Your task to perform on an android device: check the backup settings in the google photos Image 0: 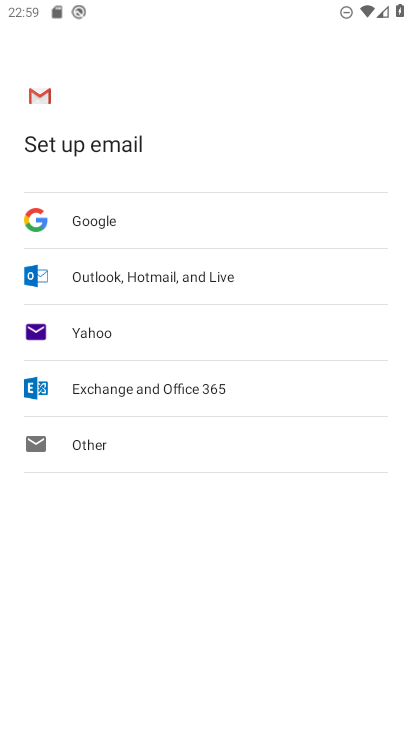
Step 0: press home button
Your task to perform on an android device: check the backup settings in the google photos Image 1: 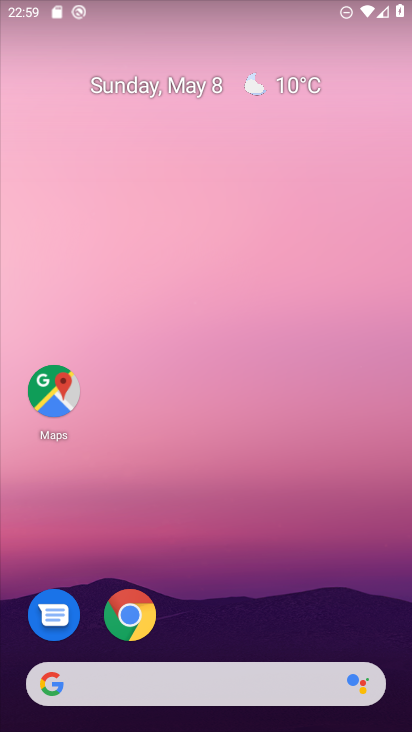
Step 1: drag from (258, 600) to (237, 132)
Your task to perform on an android device: check the backup settings in the google photos Image 2: 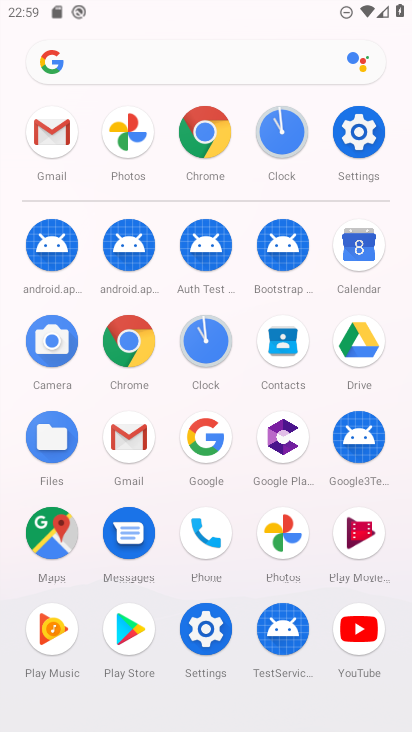
Step 2: click (285, 536)
Your task to perform on an android device: check the backup settings in the google photos Image 3: 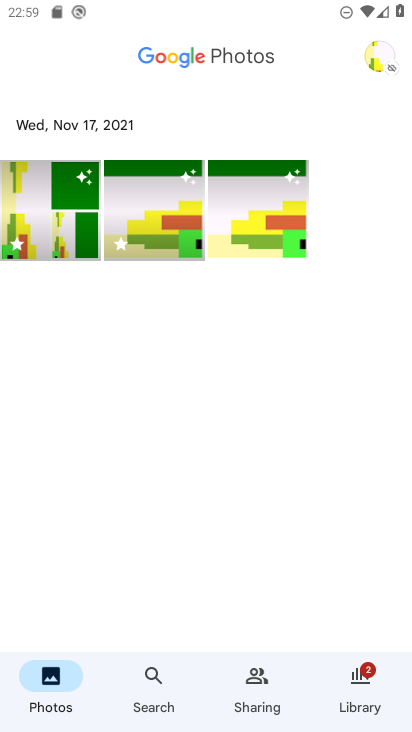
Step 3: click (387, 57)
Your task to perform on an android device: check the backup settings in the google photos Image 4: 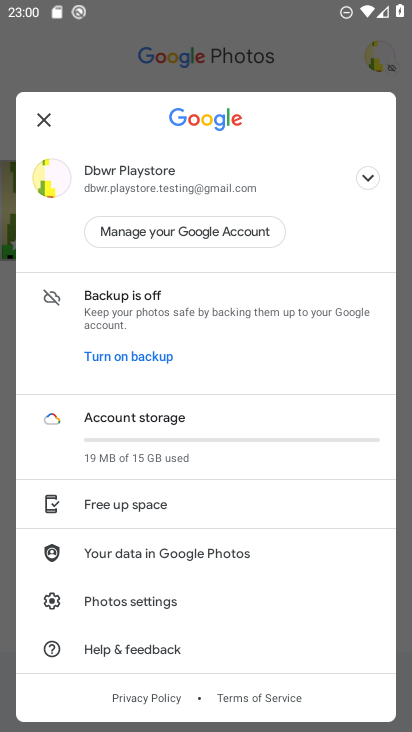
Step 4: click (138, 601)
Your task to perform on an android device: check the backup settings in the google photos Image 5: 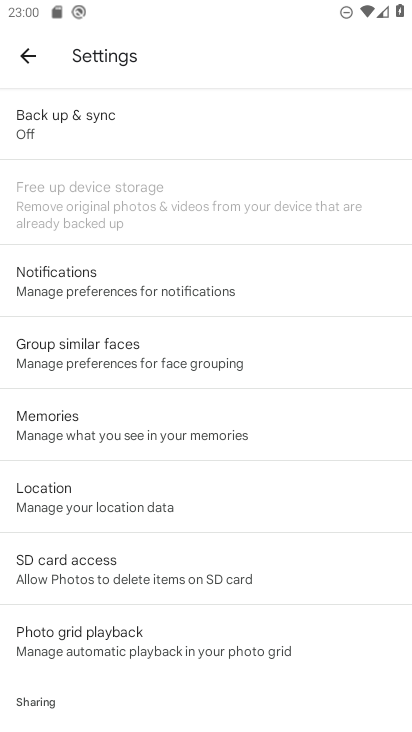
Step 5: click (97, 128)
Your task to perform on an android device: check the backup settings in the google photos Image 6: 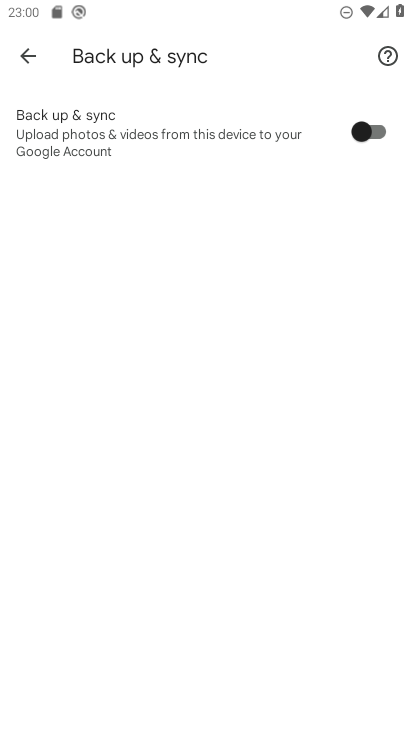
Step 6: click (29, 51)
Your task to perform on an android device: check the backup settings in the google photos Image 7: 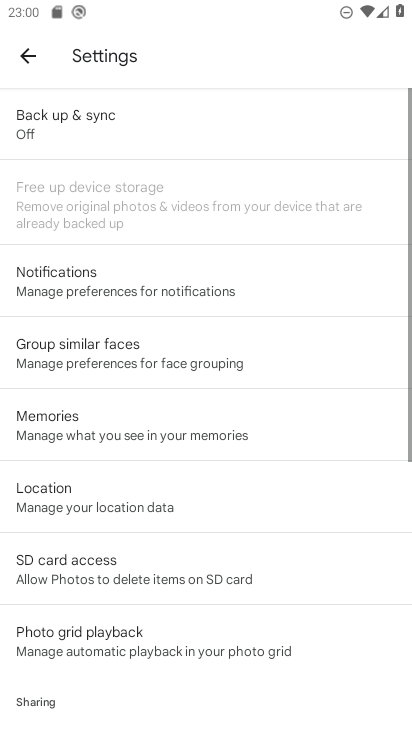
Step 7: click (29, 51)
Your task to perform on an android device: check the backup settings in the google photos Image 8: 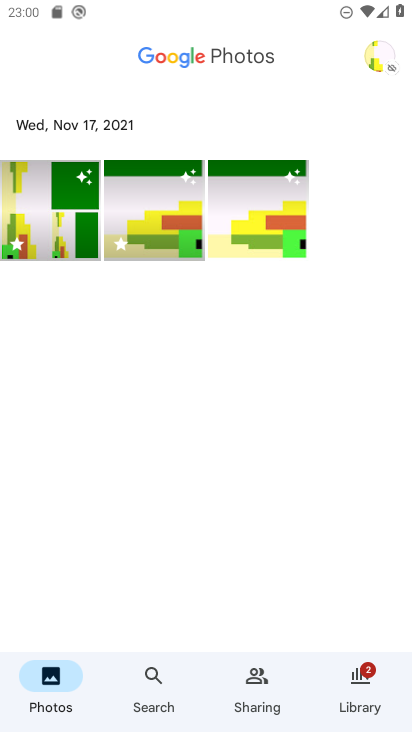
Step 8: click (388, 58)
Your task to perform on an android device: check the backup settings in the google photos Image 9: 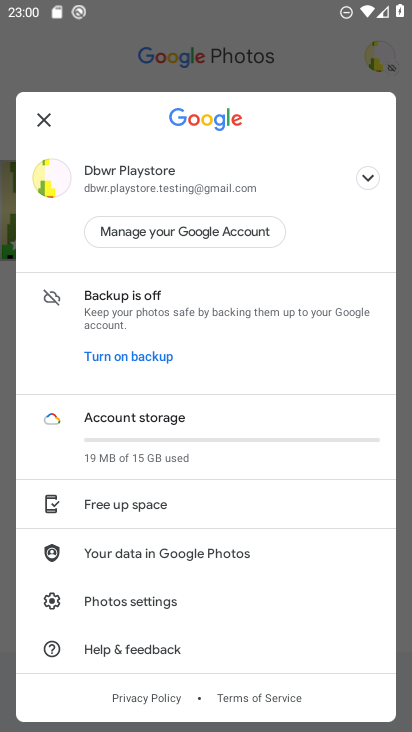
Step 9: click (161, 309)
Your task to perform on an android device: check the backup settings in the google photos Image 10: 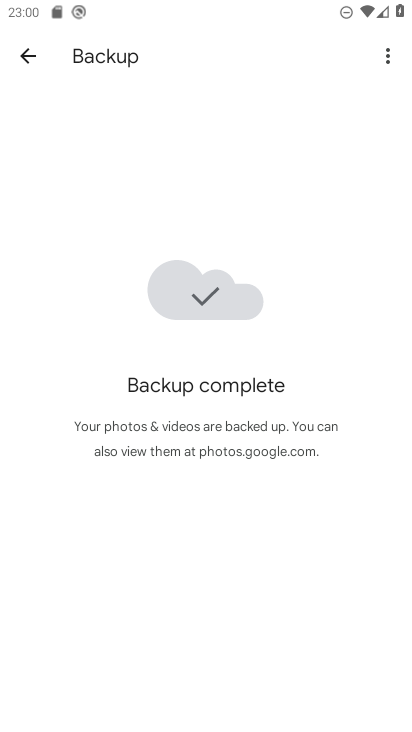
Step 10: task complete